Your task to perform on an android device: Go to Google maps Image 0: 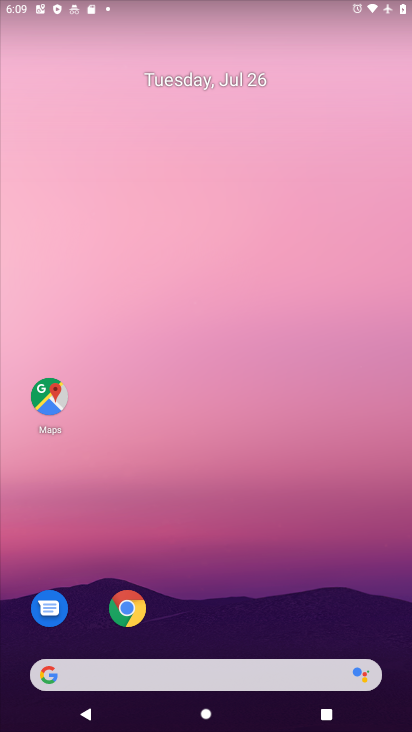
Step 0: press home button
Your task to perform on an android device: Go to Google maps Image 1: 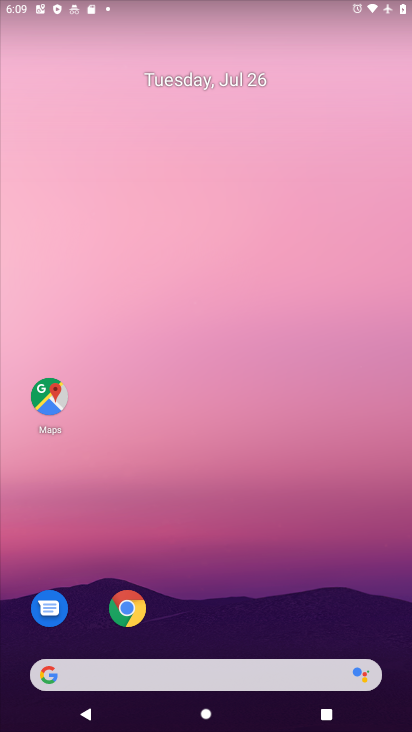
Step 1: drag from (222, 582) to (202, 112)
Your task to perform on an android device: Go to Google maps Image 2: 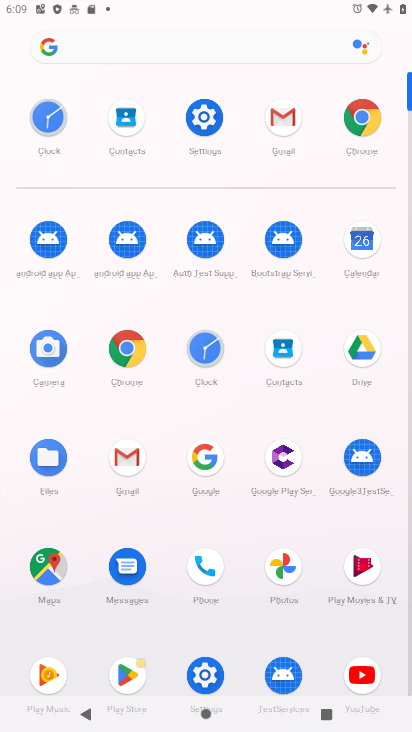
Step 2: click (43, 567)
Your task to perform on an android device: Go to Google maps Image 3: 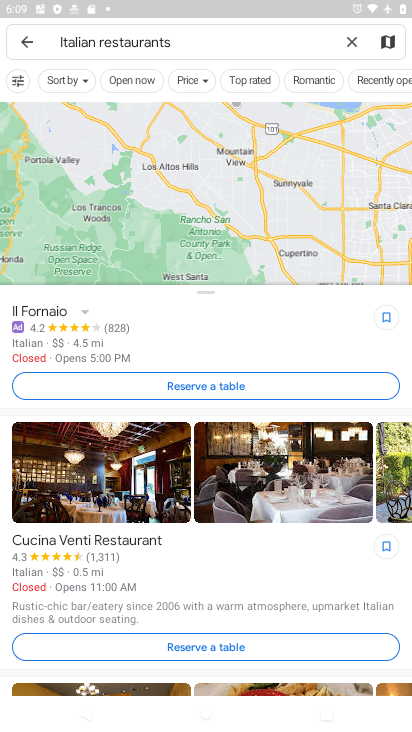
Step 3: click (24, 43)
Your task to perform on an android device: Go to Google maps Image 4: 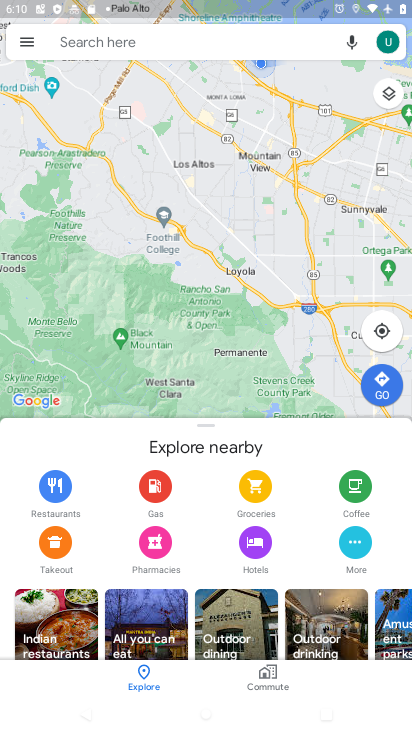
Step 4: task complete